Your task to perform on an android device: turn on javascript in the chrome app Image 0: 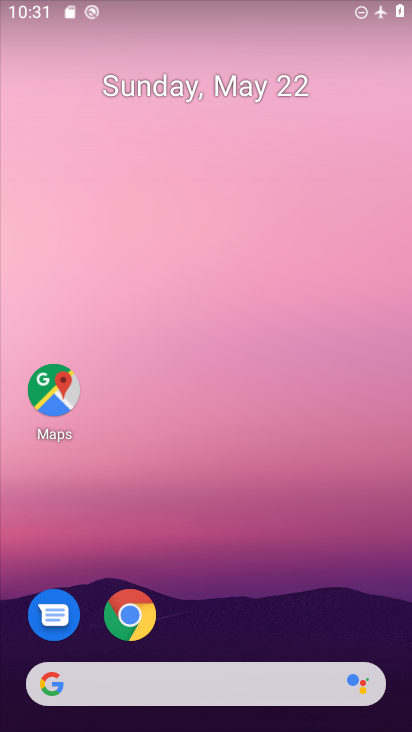
Step 0: click (128, 607)
Your task to perform on an android device: turn on javascript in the chrome app Image 1: 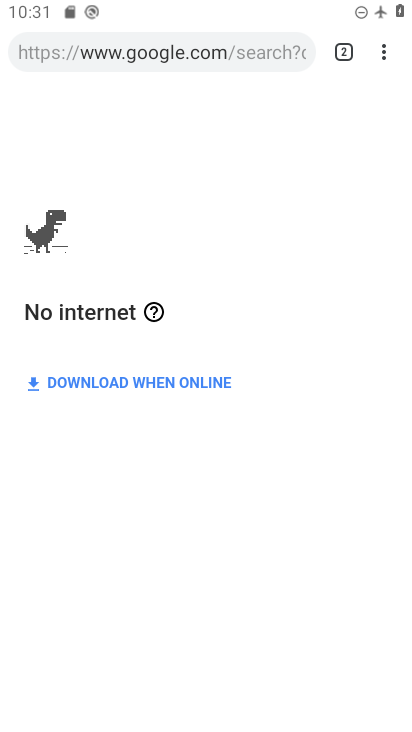
Step 1: click (385, 41)
Your task to perform on an android device: turn on javascript in the chrome app Image 2: 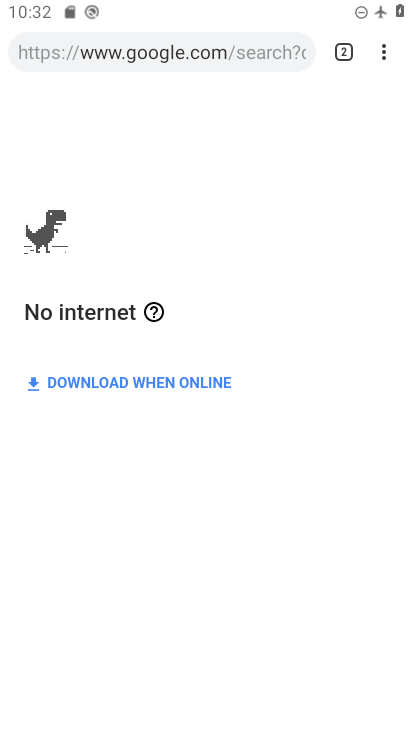
Step 2: drag from (385, 45) to (219, 594)
Your task to perform on an android device: turn on javascript in the chrome app Image 3: 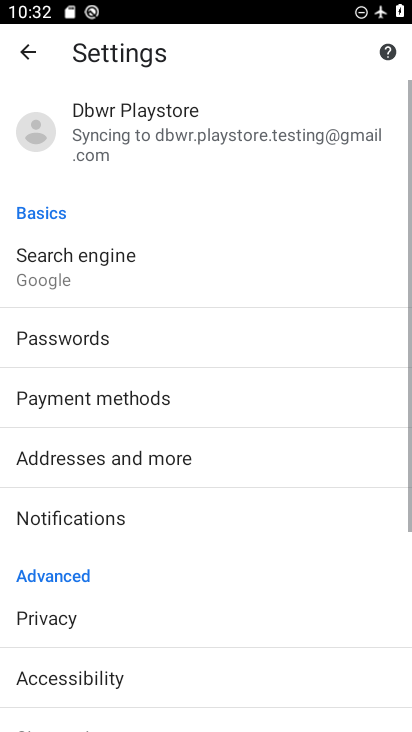
Step 3: drag from (205, 577) to (206, 117)
Your task to perform on an android device: turn on javascript in the chrome app Image 4: 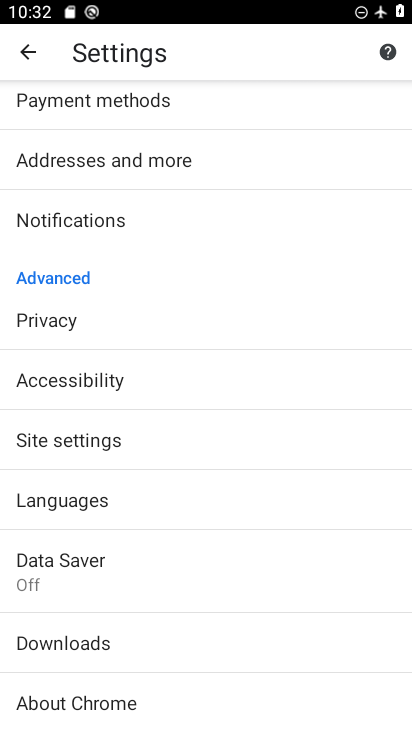
Step 4: click (108, 448)
Your task to perform on an android device: turn on javascript in the chrome app Image 5: 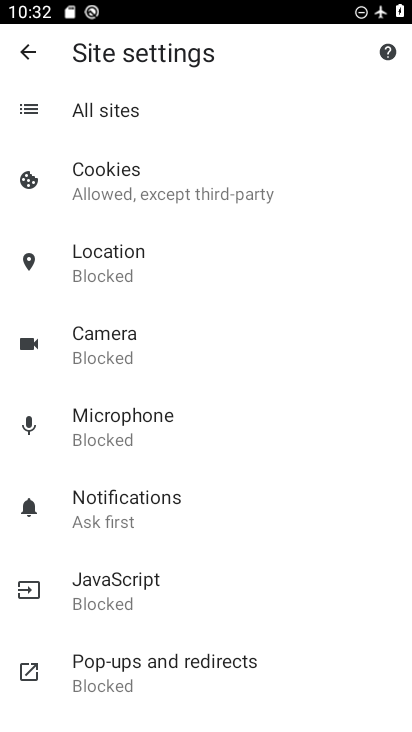
Step 5: click (135, 583)
Your task to perform on an android device: turn on javascript in the chrome app Image 6: 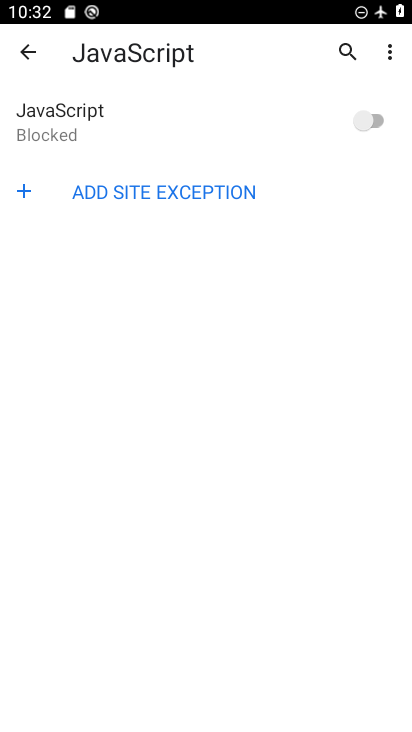
Step 6: click (382, 123)
Your task to perform on an android device: turn on javascript in the chrome app Image 7: 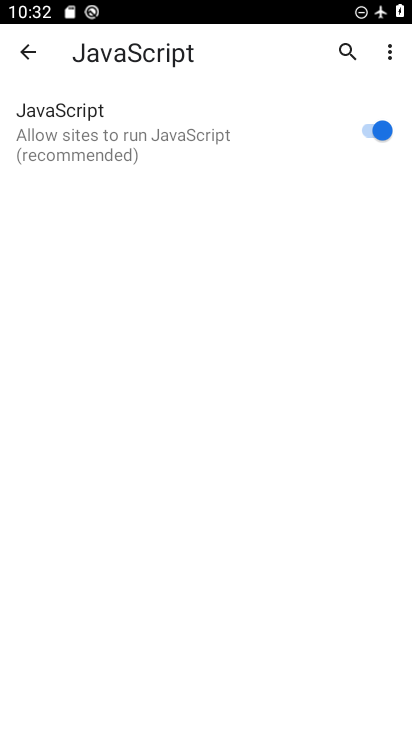
Step 7: task complete